Your task to perform on an android device: What's on my calendar today? Image 0: 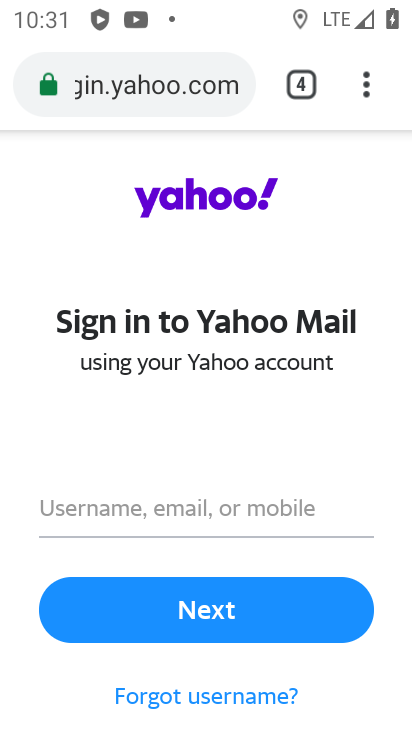
Step 0: press home button
Your task to perform on an android device: What's on my calendar today? Image 1: 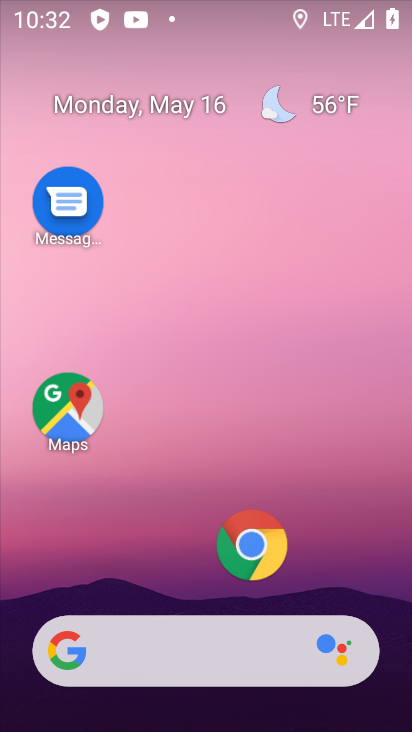
Step 1: drag from (201, 589) to (174, 76)
Your task to perform on an android device: What's on my calendar today? Image 2: 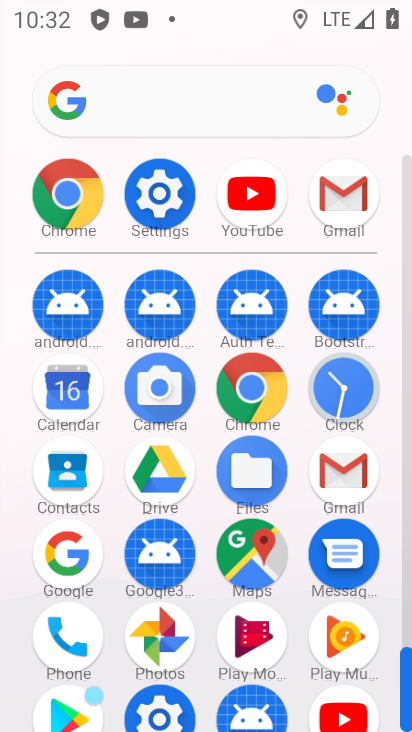
Step 2: click (75, 415)
Your task to perform on an android device: What's on my calendar today? Image 3: 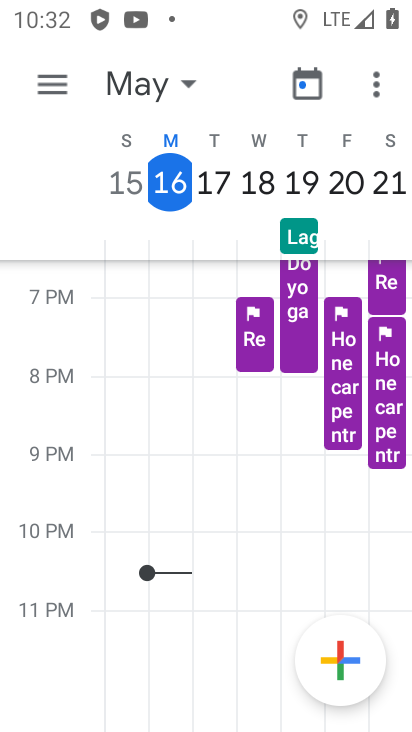
Step 3: click (169, 185)
Your task to perform on an android device: What's on my calendar today? Image 4: 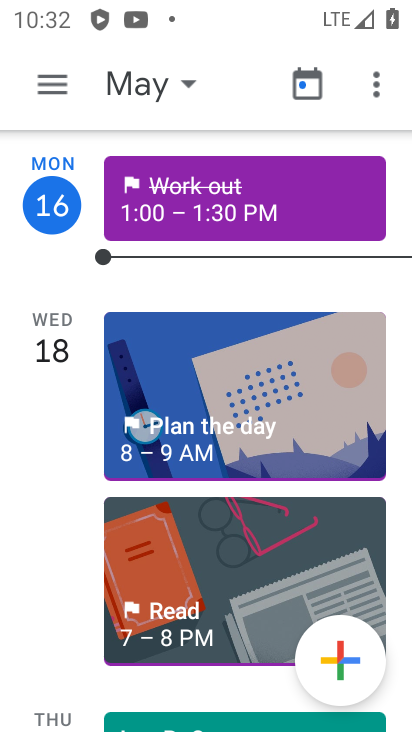
Step 4: task complete